Your task to perform on an android device: Open accessibility settings Image 0: 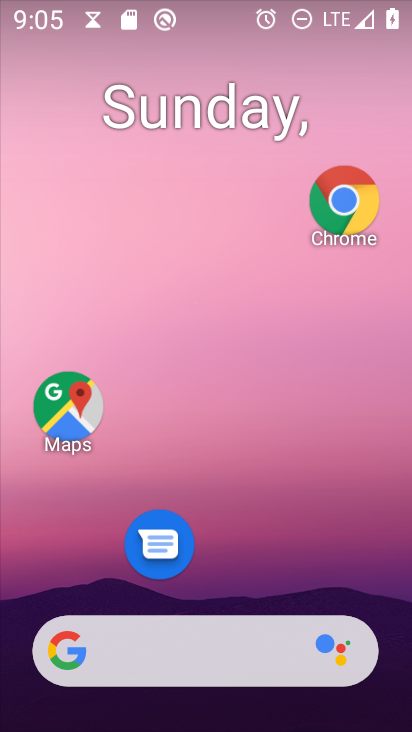
Step 0: drag from (258, 603) to (317, 84)
Your task to perform on an android device: Open accessibility settings Image 1: 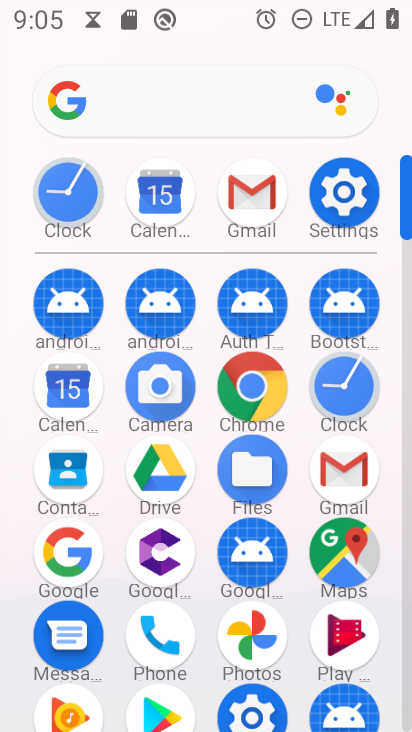
Step 1: click (348, 198)
Your task to perform on an android device: Open accessibility settings Image 2: 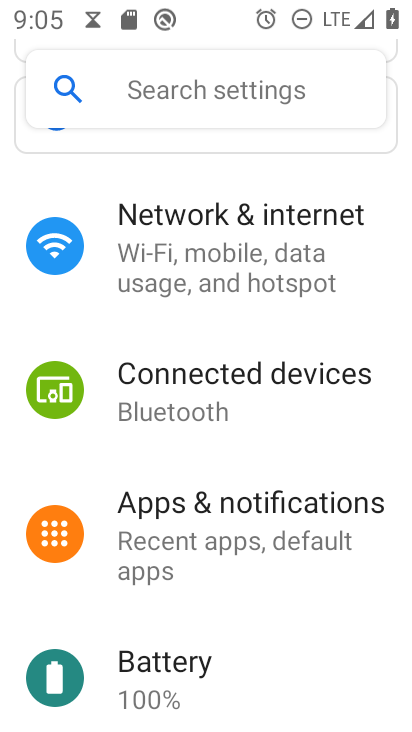
Step 2: drag from (214, 572) to (205, 297)
Your task to perform on an android device: Open accessibility settings Image 3: 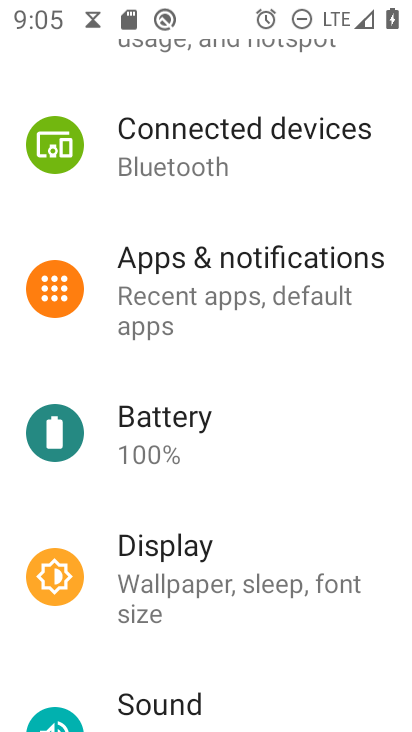
Step 3: drag from (189, 636) to (213, 380)
Your task to perform on an android device: Open accessibility settings Image 4: 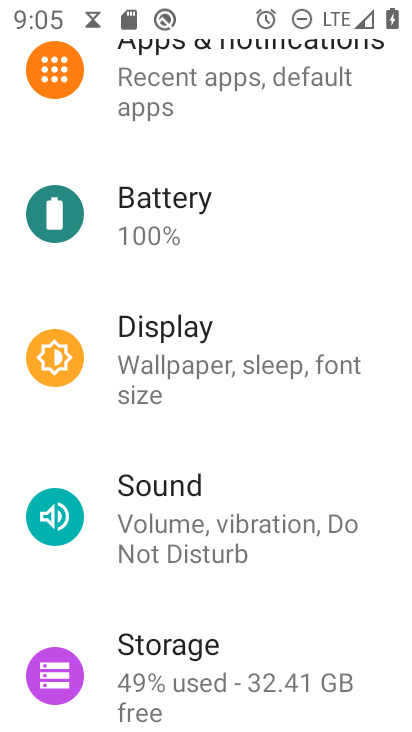
Step 4: drag from (208, 620) to (212, 419)
Your task to perform on an android device: Open accessibility settings Image 5: 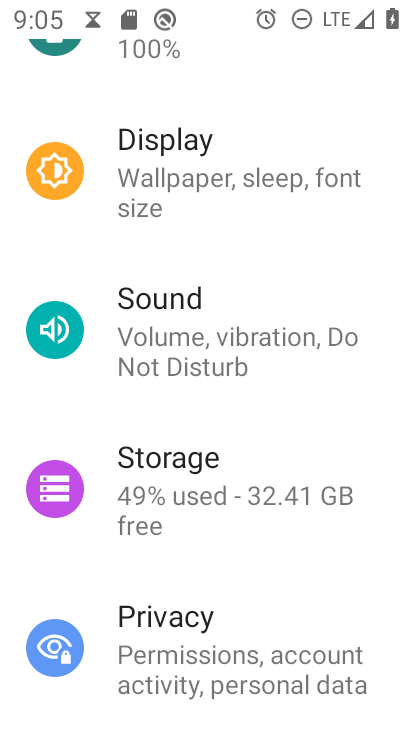
Step 5: drag from (186, 645) to (232, 436)
Your task to perform on an android device: Open accessibility settings Image 6: 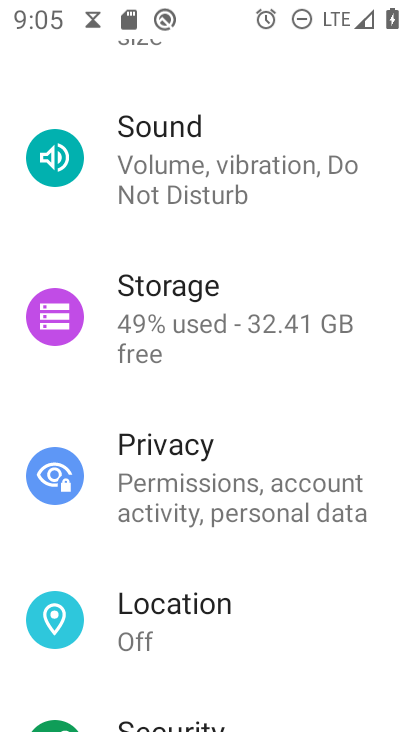
Step 6: drag from (216, 633) to (219, 408)
Your task to perform on an android device: Open accessibility settings Image 7: 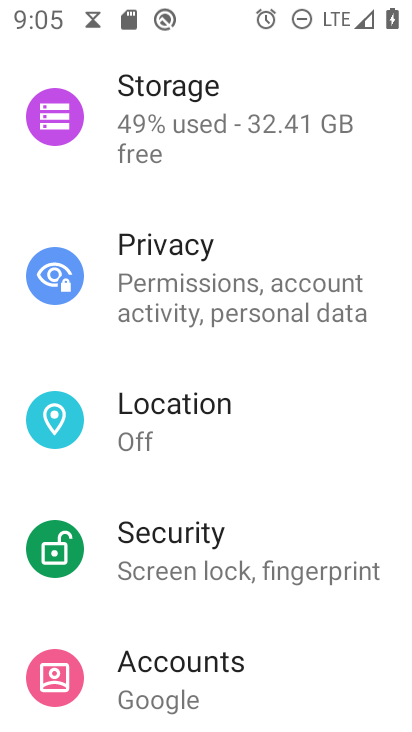
Step 7: drag from (228, 584) to (272, 391)
Your task to perform on an android device: Open accessibility settings Image 8: 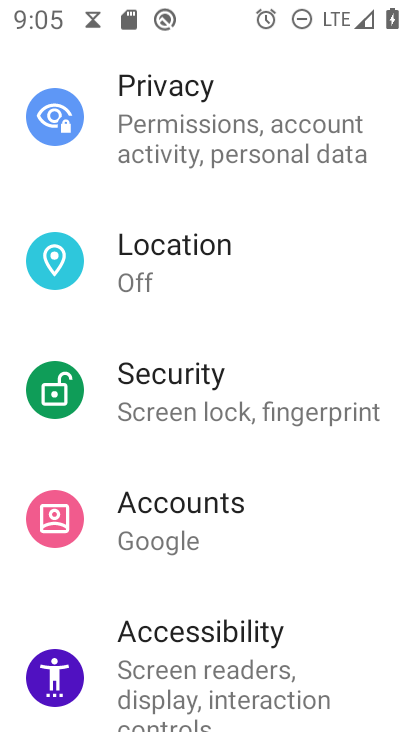
Step 8: click (212, 646)
Your task to perform on an android device: Open accessibility settings Image 9: 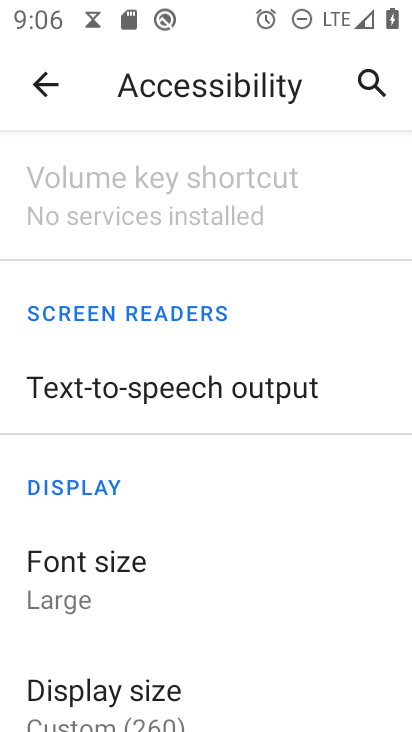
Step 9: task complete